Your task to perform on an android device: refresh tabs in the chrome app Image 0: 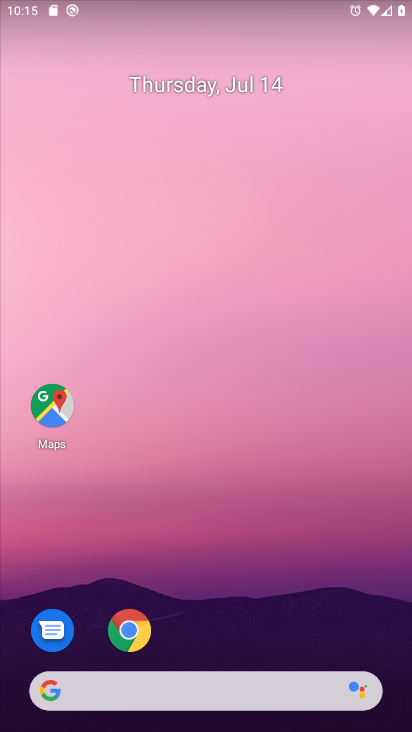
Step 0: drag from (205, 632) to (247, 112)
Your task to perform on an android device: refresh tabs in the chrome app Image 1: 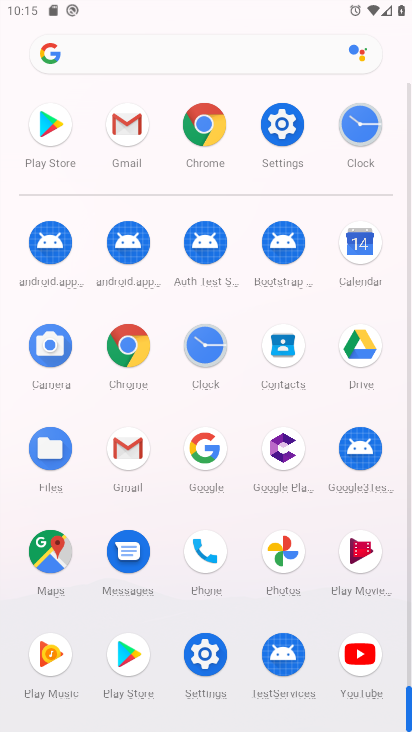
Step 1: click (128, 340)
Your task to perform on an android device: refresh tabs in the chrome app Image 2: 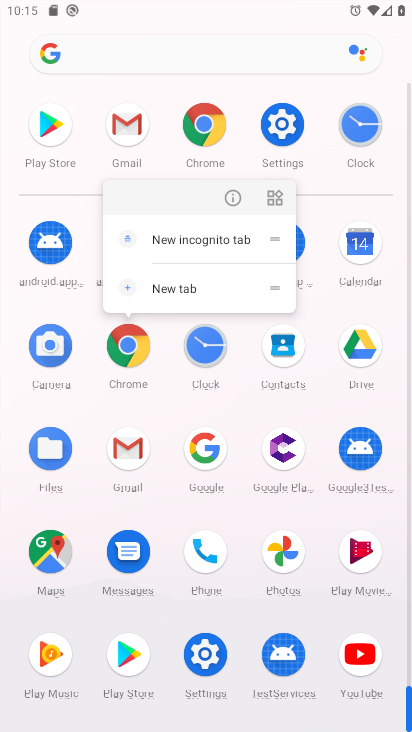
Step 2: click (239, 200)
Your task to perform on an android device: refresh tabs in the chrome app Image 3: 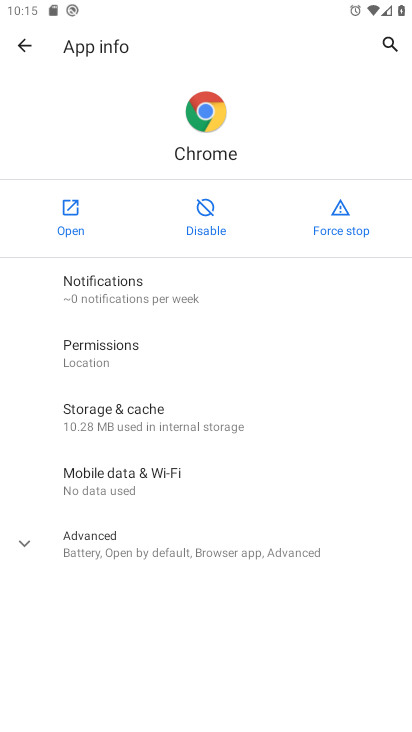
Step 3: click (77, 230)
Your task to perform on an android device: refresh tabs in the chrome app Image 4: 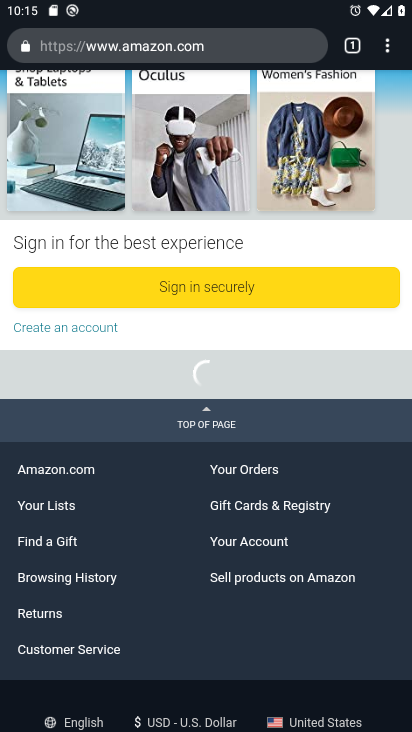
Step 4: click (388, 41)
Your task to perform on an android device: refresh tabs in the chrome app Image 5: 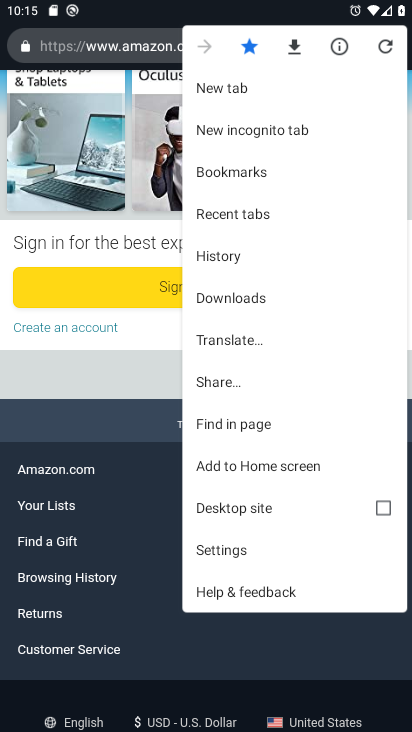
Step 5: click (383, 44)
Your task to perform on an android device: refresh tabs in the chrome app Image 6: 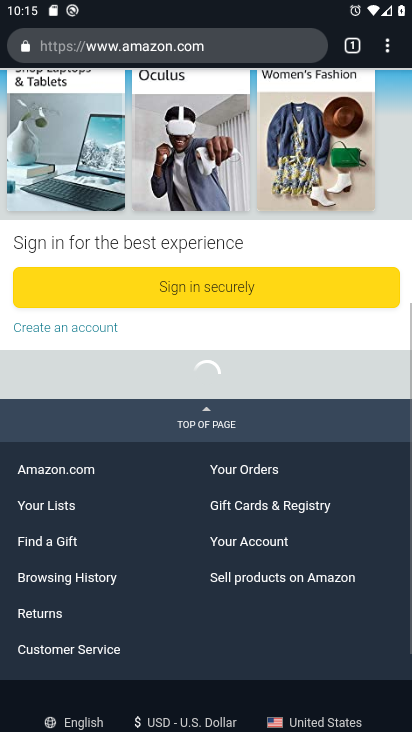
Step 6: task complete